Your task to perform on an android device: Search for vegetarian restaurants on Maps Image 0: 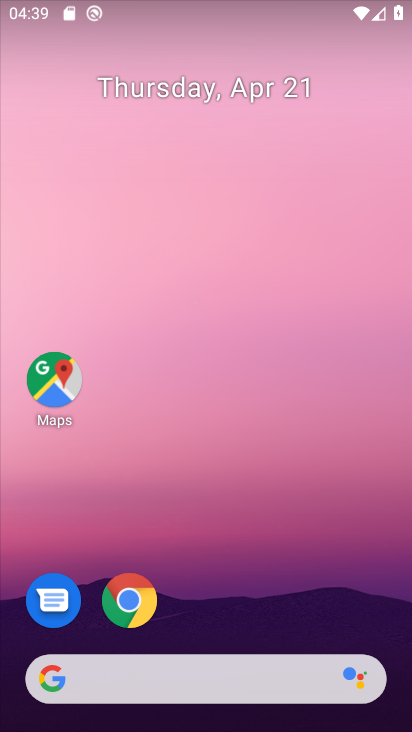
Step 0: click (51, 379)
Your task to perform on an android device: Search for vegetarian restaurants on Maps Image 1: 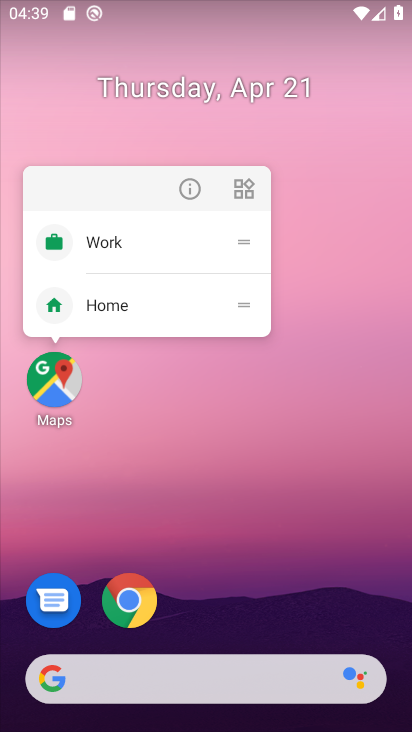
Step 1: click (52, 376)
Your task to perform on an android device: Search for vegetarian restaurants on Maps Image 2: 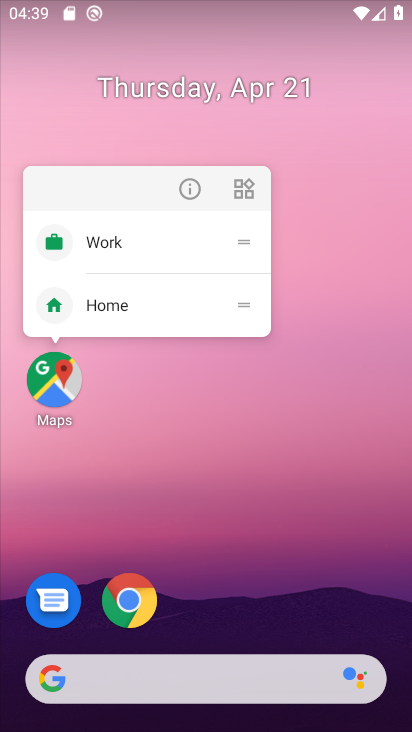
Step 2: click (55, 378)
Your task to perform on an android device: Search for vegetarian restaurants on Maps Image 3: 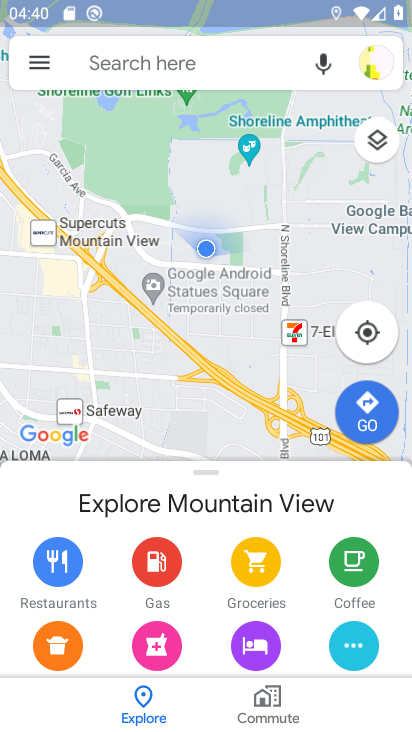
Step 3: click (95, 67)
Your task to perform on an android device: Search for vegetarian restaurants on Maps Image 4: 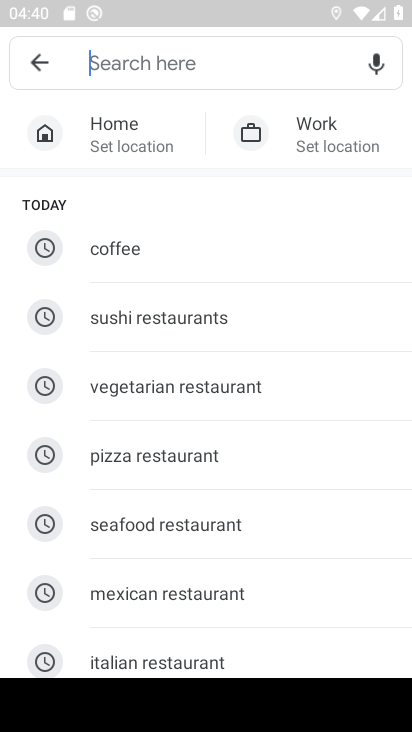
Step 4: type "vegetarian restaurant"
Your task to perform on an android device: Search for vegetarian restaurants on Maps Image 5: 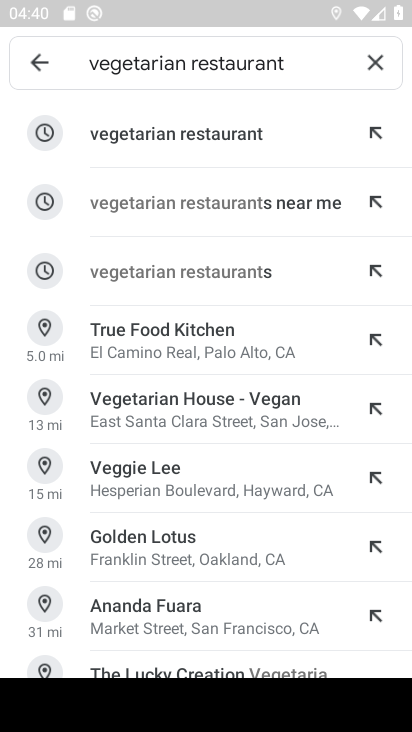
Step 5: click (215, 127)
Your task to perform on an android device: Search for vegetarian restaurants on Maps Image 6: 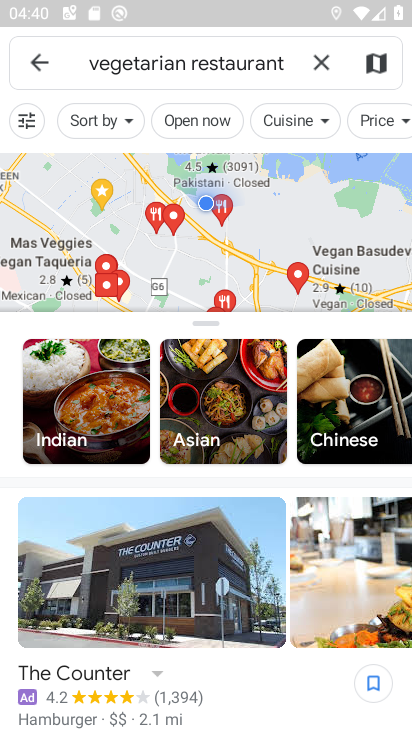
Step 6: task complete